Your task to perform on an android device: Go to battery settings Image 0: 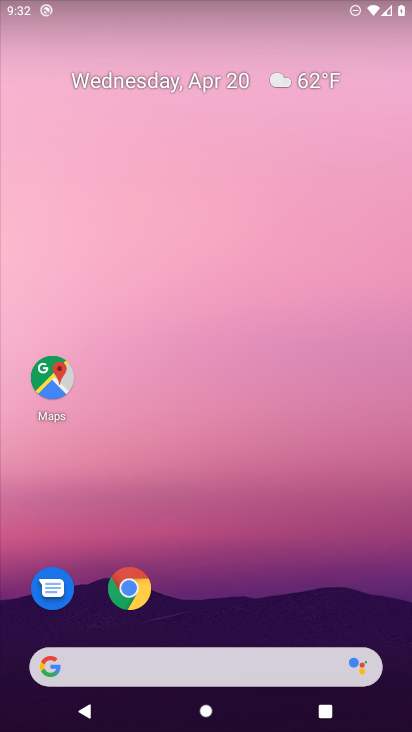
Step 0: drag from (212, 628) to (237, 14)
Your task to perform on an android device: Go to battery settings Image 1: 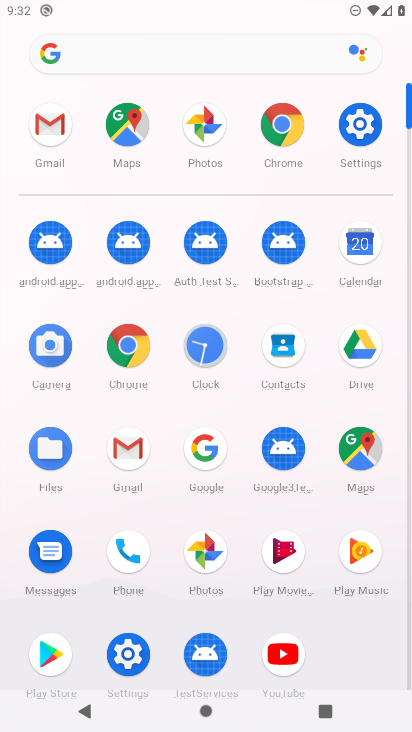
Step 1: click (124, 646)
Your task to perform on an android device: Go to battery settings Image 2: 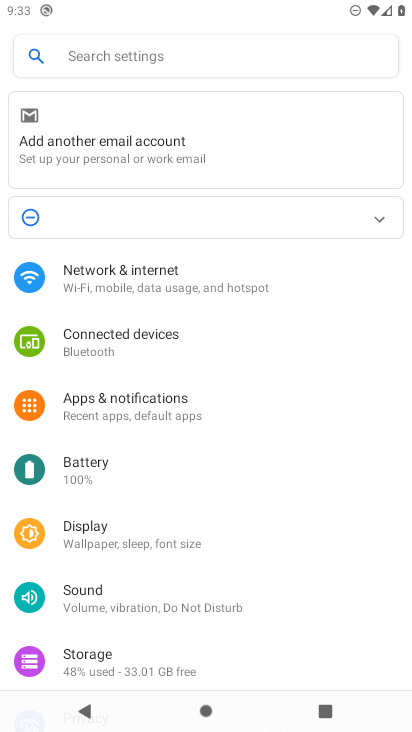
Step 2: click (115, 468)
Your task to perform on an android device: Go to battery settings Image 3: 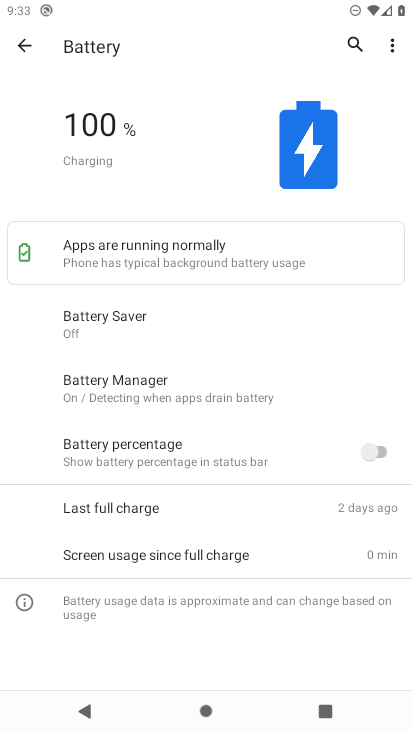
Step 3: task complete